Your task to perform on an android device: Show me productivity apps on the Play Store Image 0: 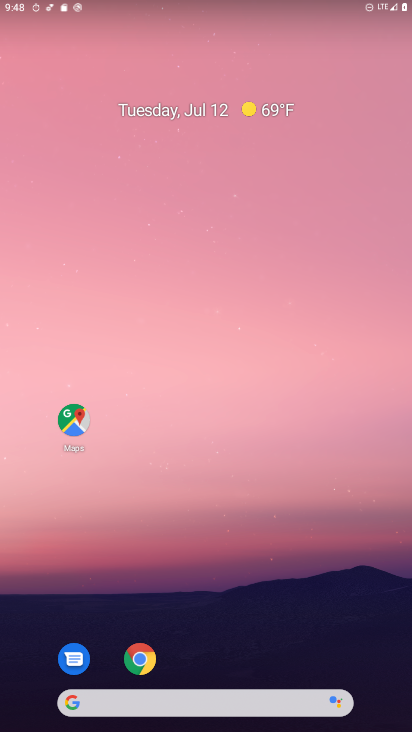
Step 0: drag from (202, 698) to (189, 106)
Your task to perform on an android device: Show me productivity apps on the Play Store Image 1: 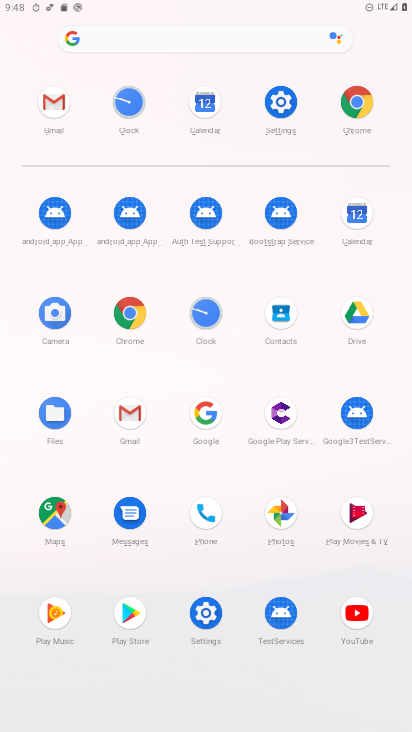
Step 1: click (124, 611)
Your task to perform on an android device: Show me productivity apps on the Play Store Image 2: 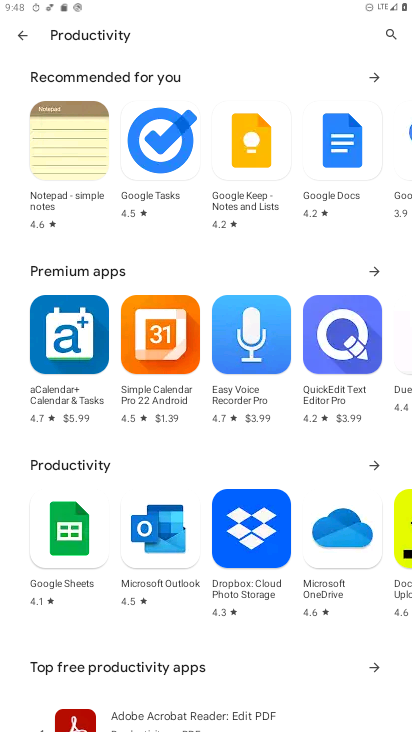
Step 2: task complete